Your task to perform on an android device: search for starred emails in the gmail app Image 0: 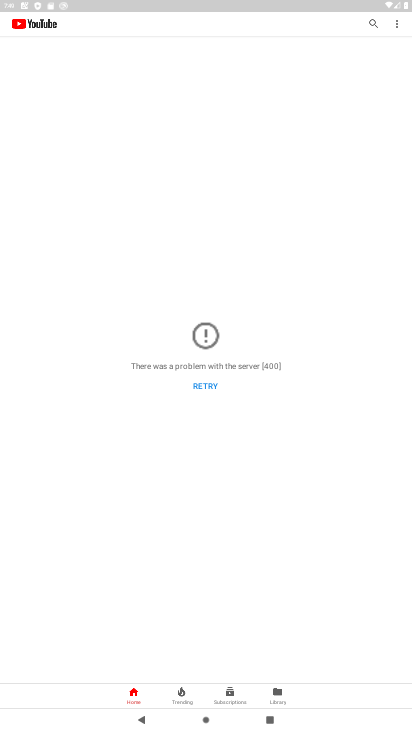
Step 0: press home button
Your task to perform on an android device: search for starred emails in the gmail app Image 1: 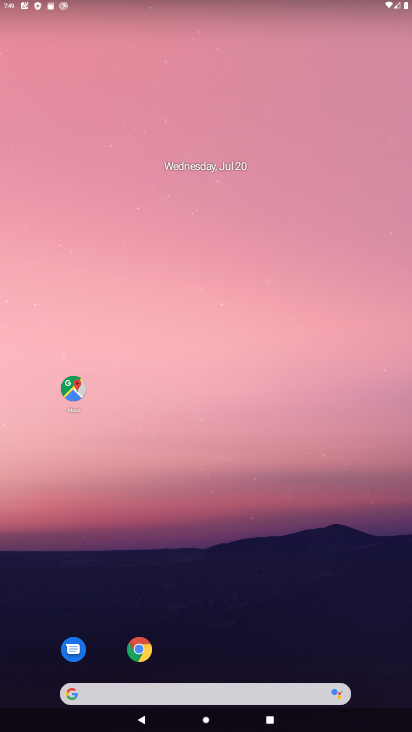
Step 1: drag from (235, 662) to (164, 82)
Your task to perform on an android device: search for starred emails in the gmail app Image 2: 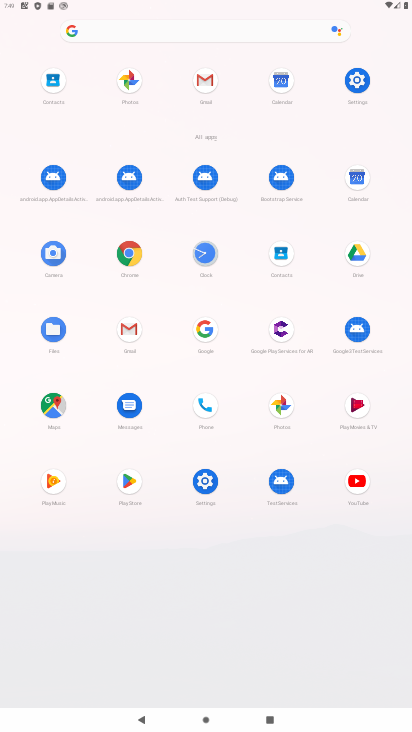
Step 2: click (199, 76)
Your task to perform on an android device: search for starred emails in the gmail app Image 3: 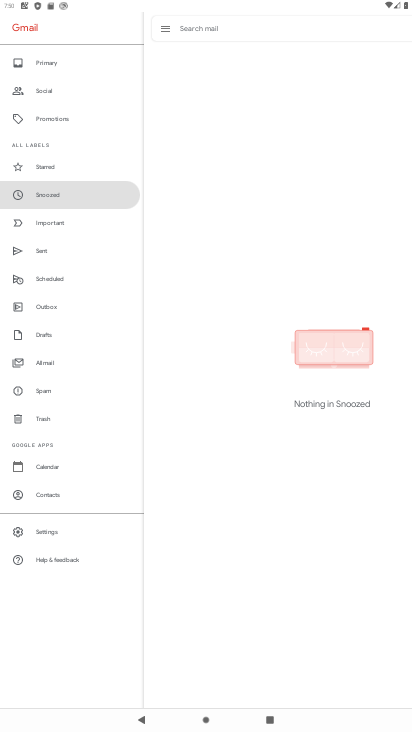
Step 3: click (74, 167)
Your task to perform on an android device: search for starred emails in the gmail app Image 4: 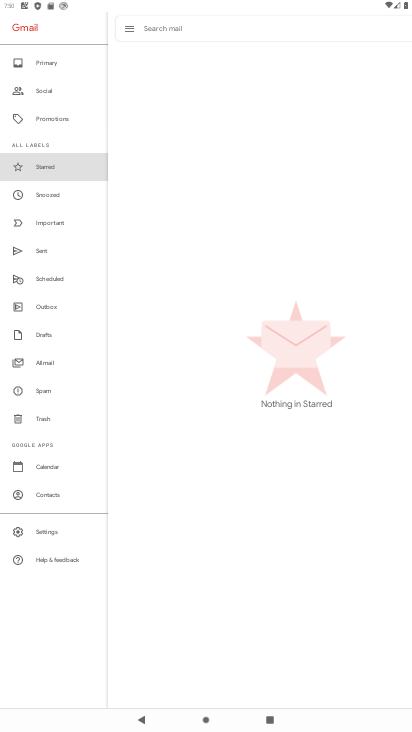
Step 4: task complete